Your task to perform on an android device: change the clock display to show seconds Image 0: 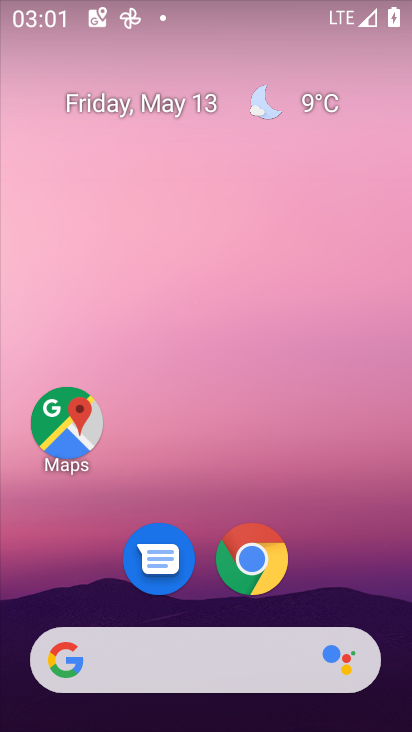
Step 0: drag from (392, 683) to (362, 196)
Your task to perform on an android device: change the clock display to show seconds Image 1: 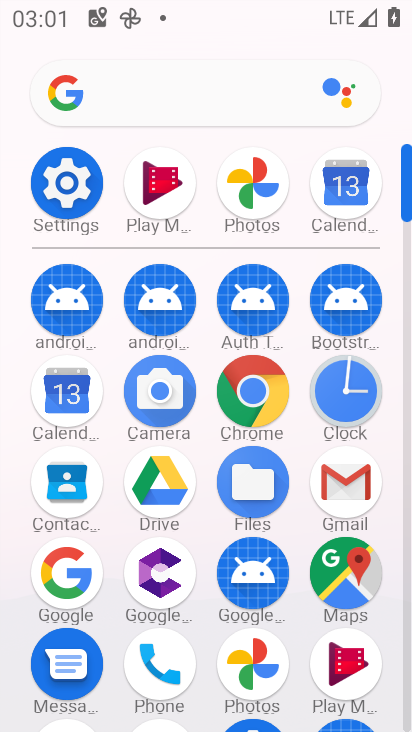
Step 1: click (346, 403)
Your task to perform on an android device: change the clock display to show seconds Image 2: 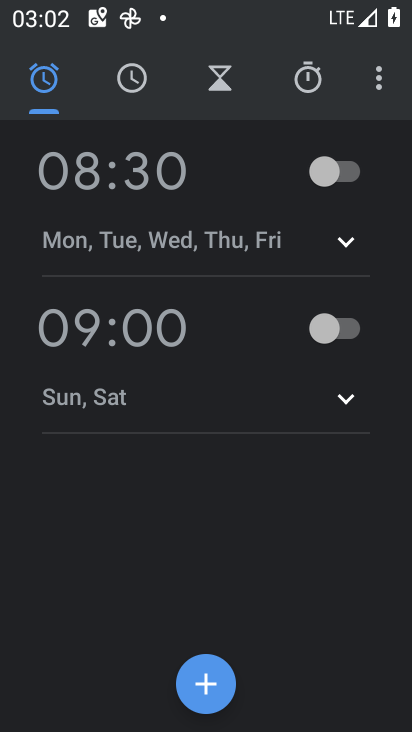
Step 2: click (298, 90)
Your task to perform on an android device: change the clock display to show seconds Image 3: 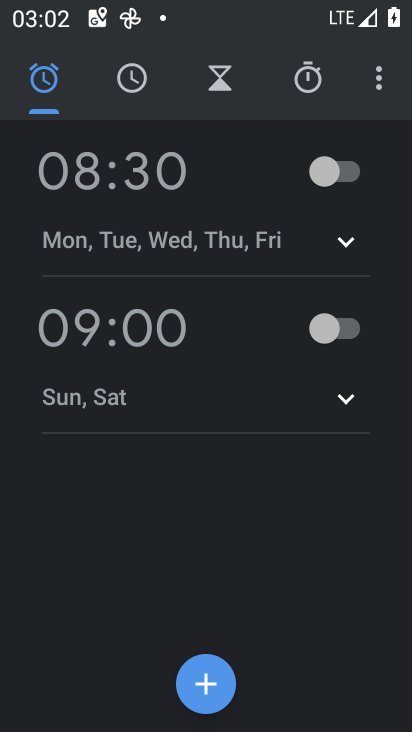
Step 3: click (384, 82)
Your task to perform on an android device: change the clock display to show seconds Image 4: 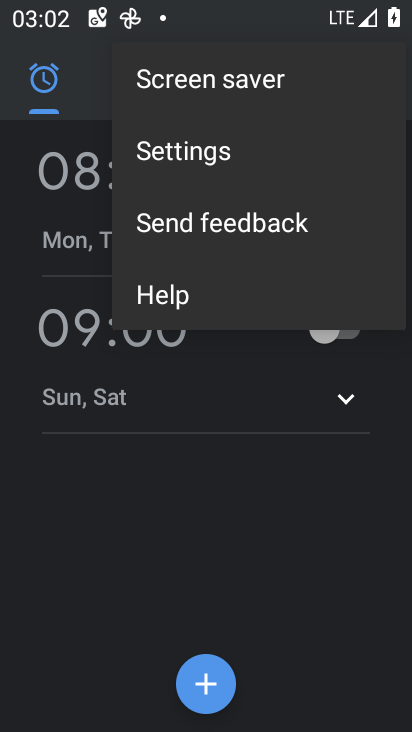
Step 4: click (211, 148)
Your task to perform on an android device: change the clock display to show seconds Image 5: 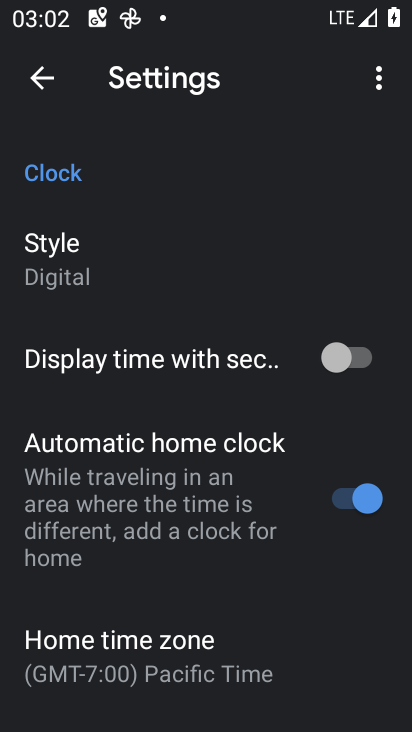
Step 5: click (346, 357)
Your task to perform on an android device: change the clock display to show seconds Image 6: 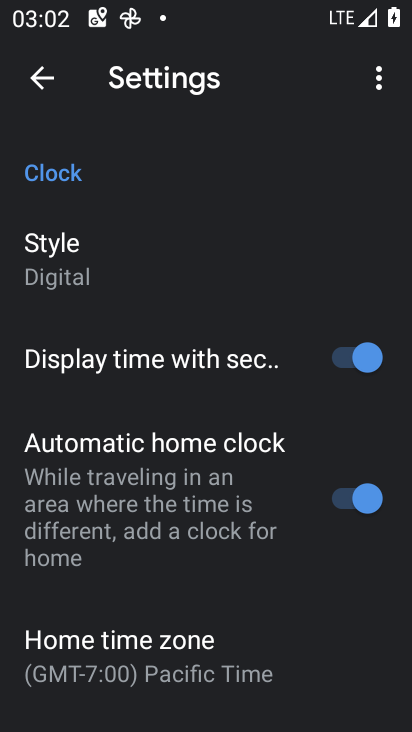
Step 6: task complete